Your task to perform on an android device: Open Yahoo.com Image 0: 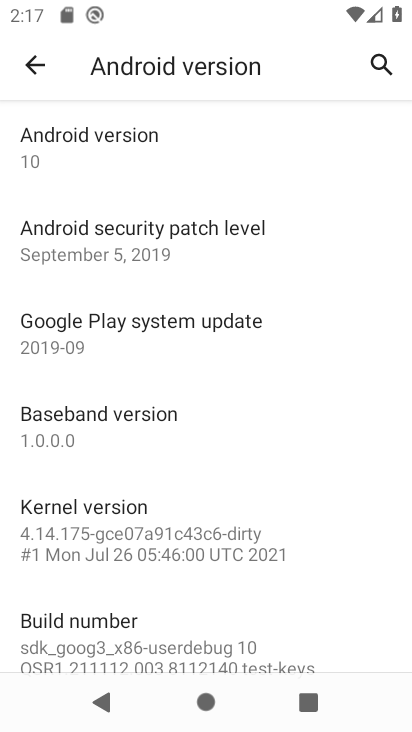
Step 0: press home button
Your task to perform on an android device: Open Yahoo.com Image 1: 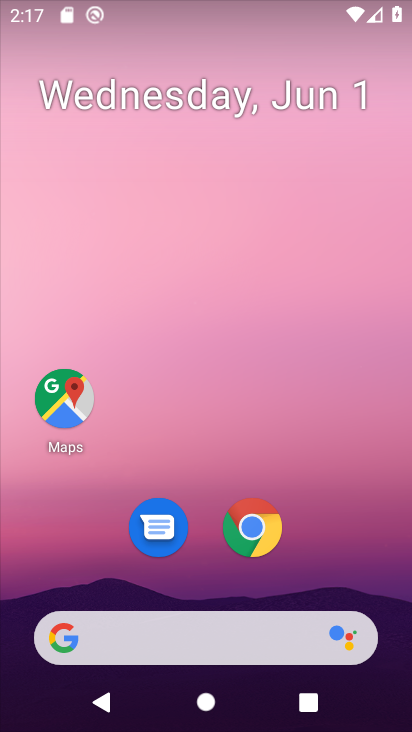
Step 1: click (263, 522)
Your task to perform on an android device: Open Yahoo.com Image 2: 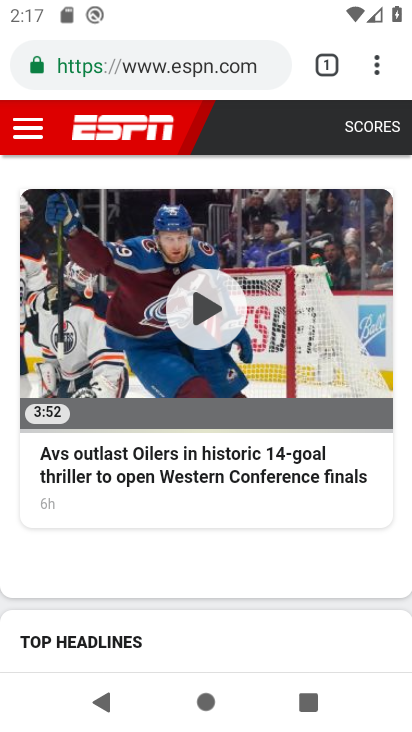
Step 2: click (164, 57)
Your task to perform on an android device: Open Yahoo.com Image 3: 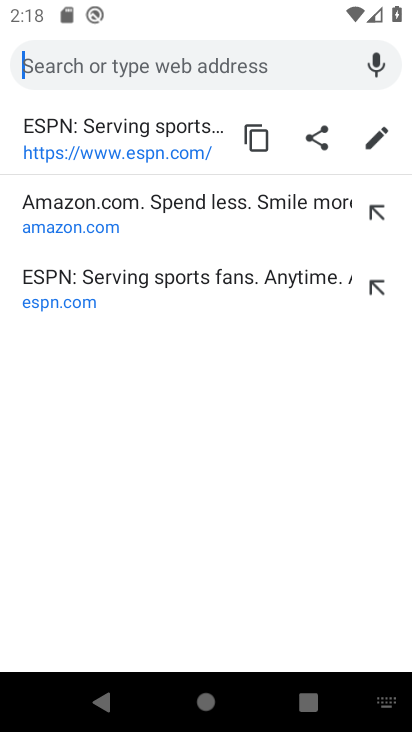
Step 3: type "Yahoo.com"
Your task to perform on an android device: Open Yahoo.com Image 4: 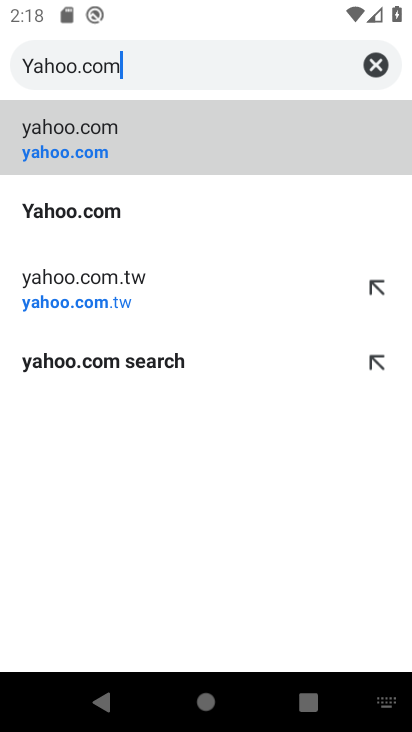
Step 4: click (77, 157)
Your task to perform on an android device: Open Yahoo.com Image 5: 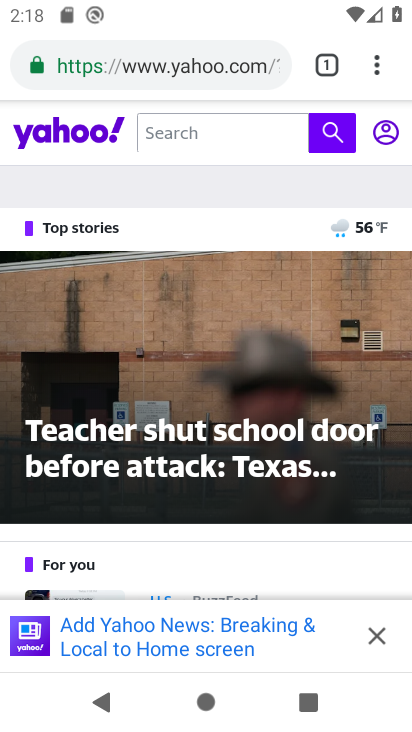
Step 5: task complete